Your task to perform on an android device: show emergency info Image 0: 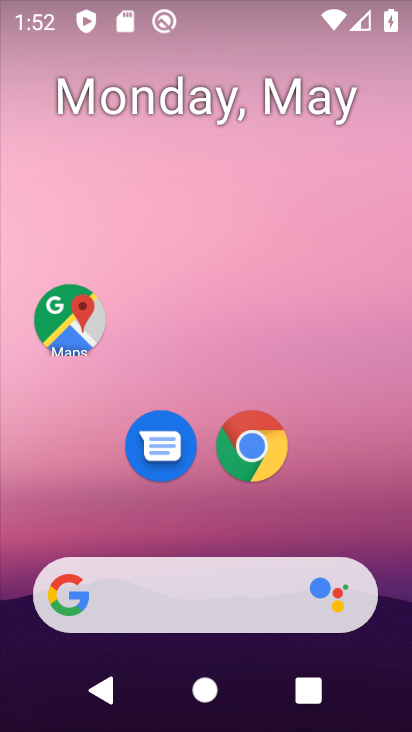
Step 0: drag from (329, 471) to (310, 118)
Your task to perform on an android device: show emergency info Image 1: 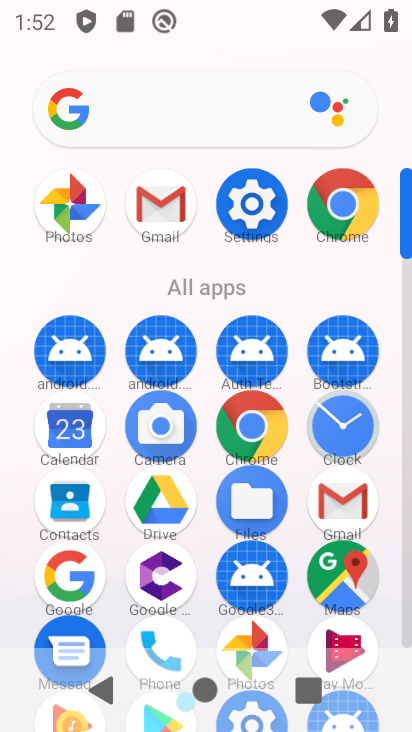
Step 1: click (253, 208)
Your task to perform on an android device: show emergency info Image 2: 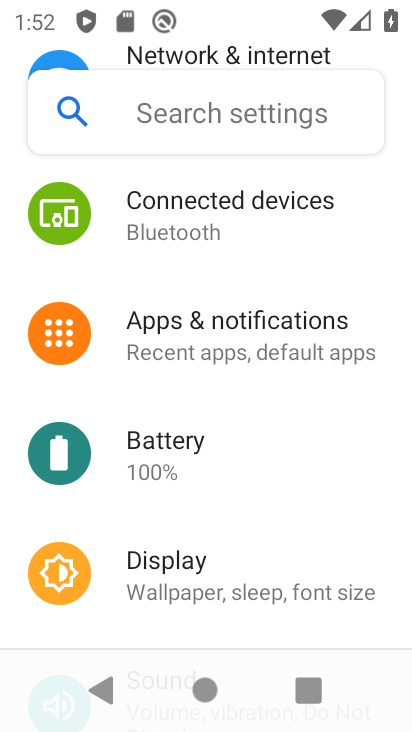
Step 2: drag from (215, 530) to (230, 163)
Your task to perform on an android device: show emergency info Image 3: 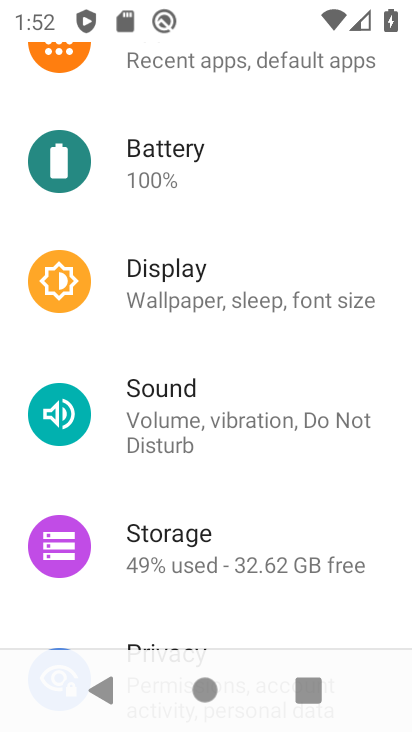
Step 3: drag from (238, 544) to (248, 267)
Your task to perform on an android device: show emergency info Image 4: 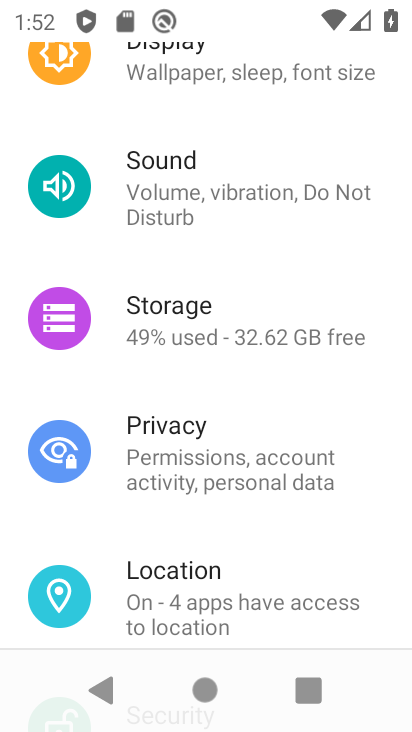
Step 4: drag from (241, 562) to (254, 279)
Your task to perform on an android device: show emergency info Image 5: 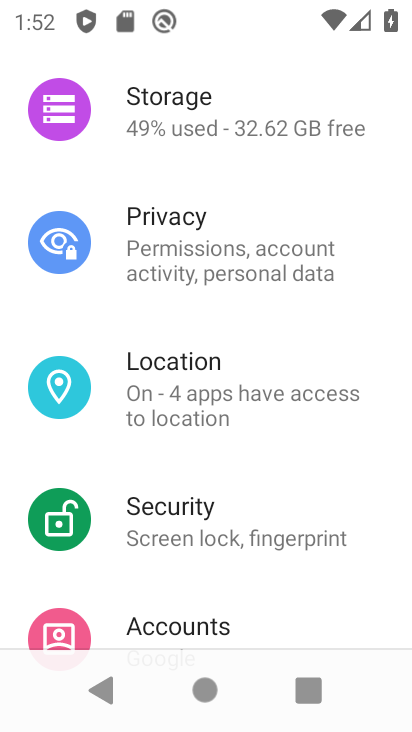
Step 5: drag from (242, 561) to (278, 236)
Your task to perform on an android device: show emergency info Image 6: 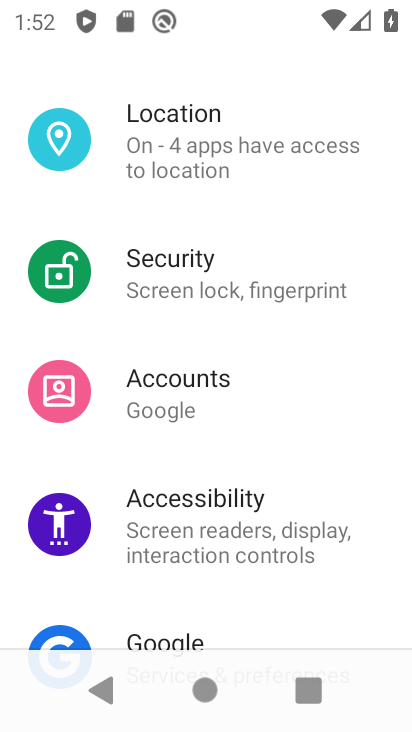
Step 6: drag from (220, 554) to (263, 161)
Your task to perform on an android device: show emergency info Image 7: 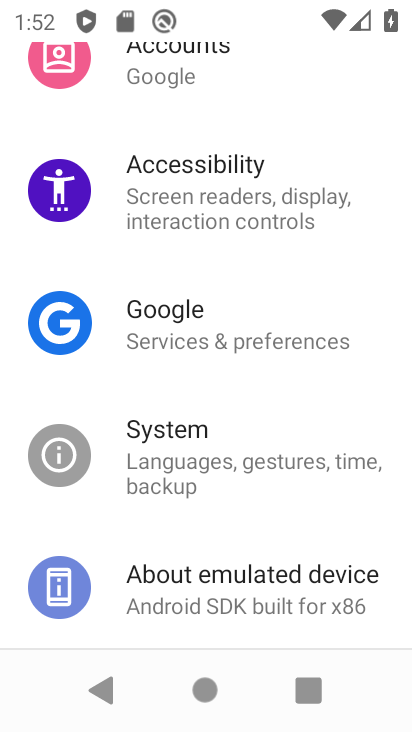
Step 7: click (214, 583)
Your task to perform on an android device: show emergency info Image 8: 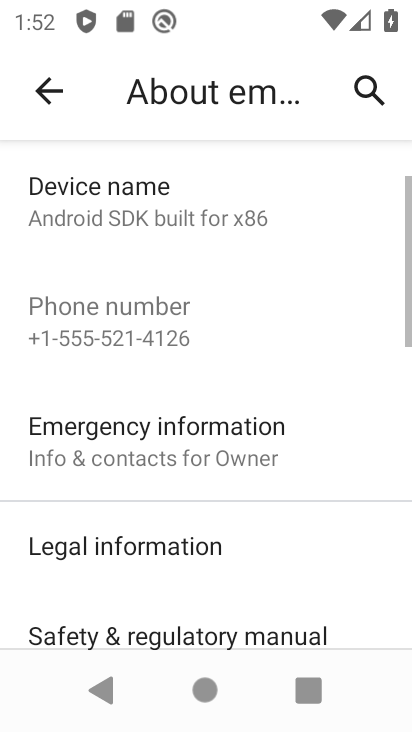
Step 8: click (178, 453)
Your task to perform on an android device: show emergency info Image 9: 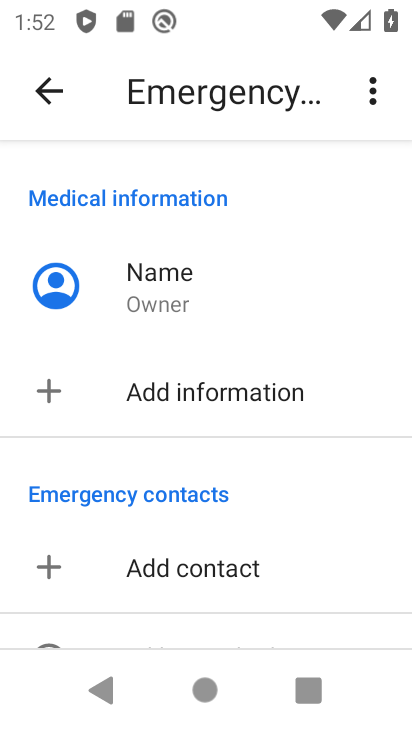
Step 9: task complete